Your task to perform on an android device: Open location settings Image 0: 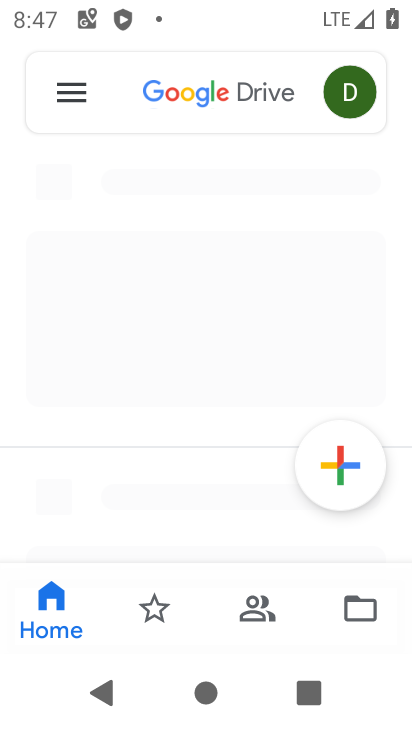
Step 0: click (257, 603)
Your task to perform on an android device: Open location settings Image 1: 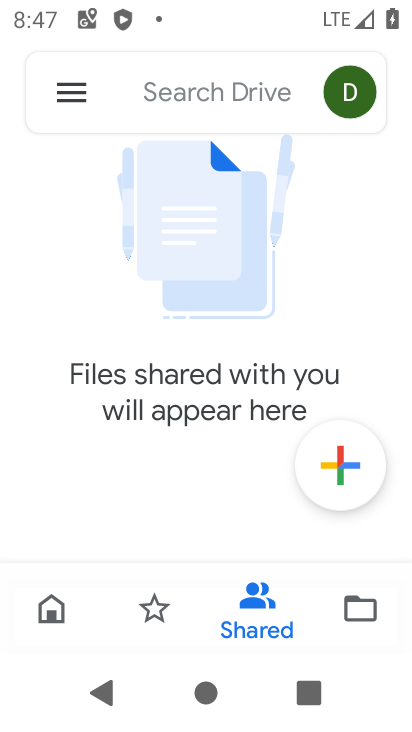
Step 1: press home button
Your task to perform on an android device: Open location settings Image 2: 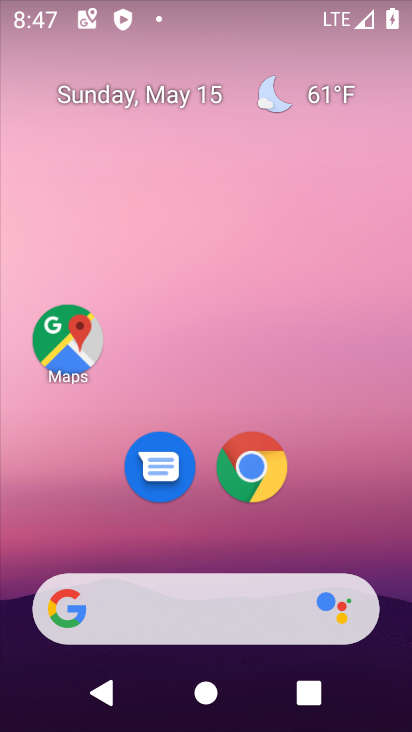
Step 2: drag from (188, 544) to (236, 30)
Your task to perform on an android device: Open location settings Image 3: 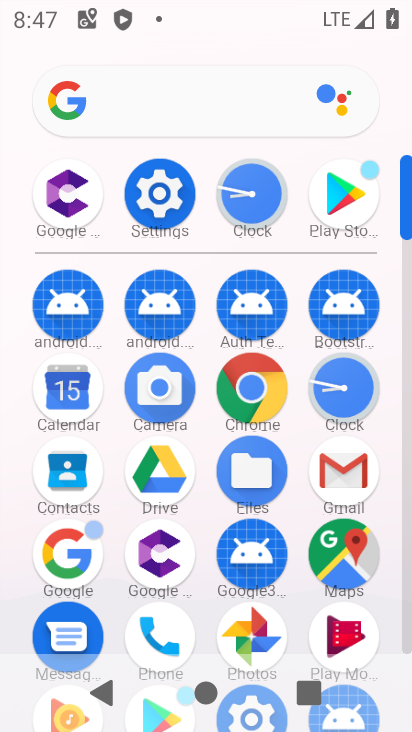
Step 3: click (158, 203)
Your task to perform on an android device: Open location settings Image 4: 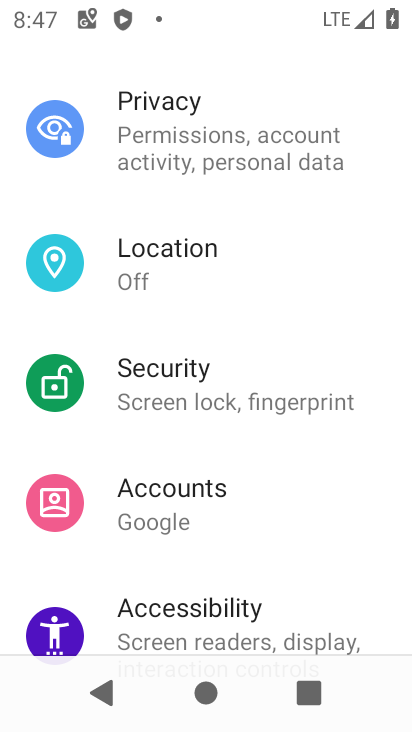
Step 4: click (135, 234)
Your task to perform on an android device: Open location settings Image 5: 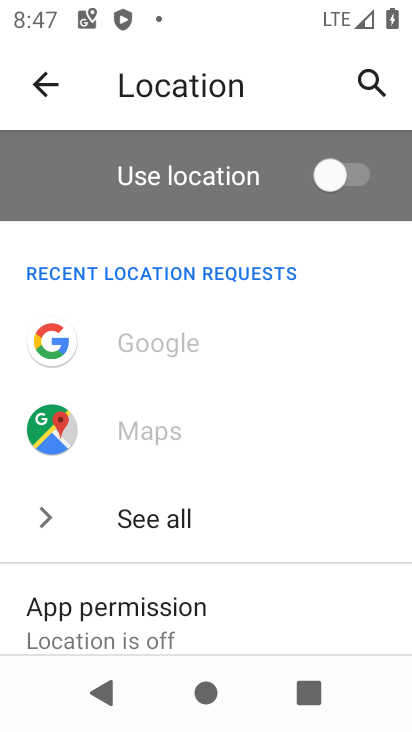
Step 5: task complete